Your task to perform on an android device: set the stopwatch Image 0: 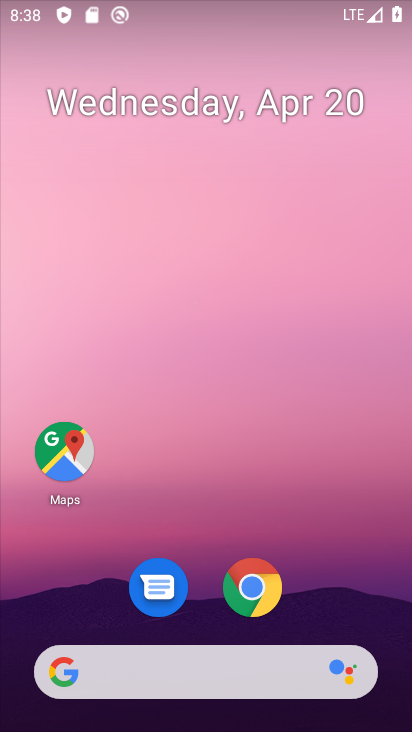
Step 0: drag from (352, 571) to (349, 216)
Your task to perform on an android device: set the stopwatch Image 1: 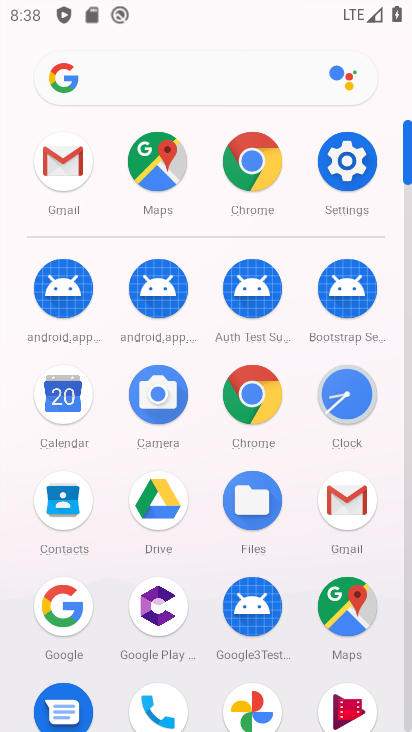
Step 1: click (359, 399)
Your task to perform on an android device: set the stopwatch Image 2: 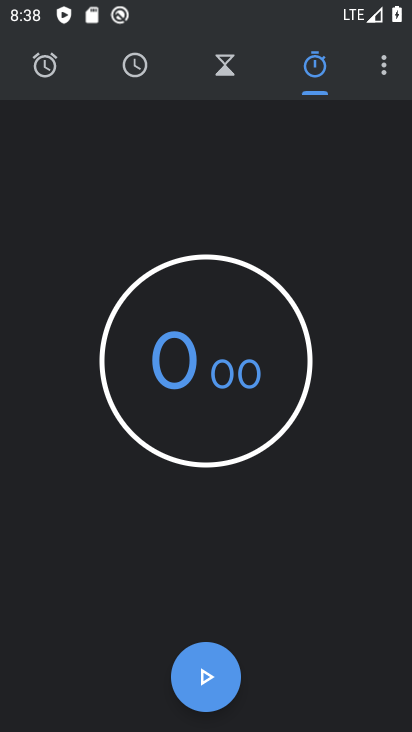
Step 2: click (220, 662)
Your task to perform on an android device: set the stopwatch Image 3: 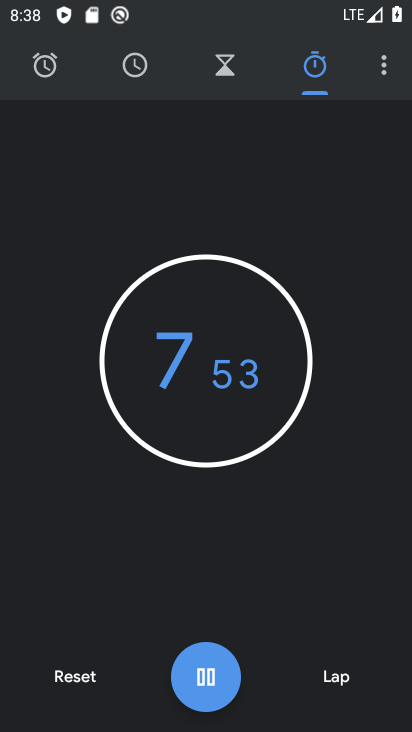
Step 3: task complete